Your task to perform on an android device: move a message to another label in the gmail app Image 0: 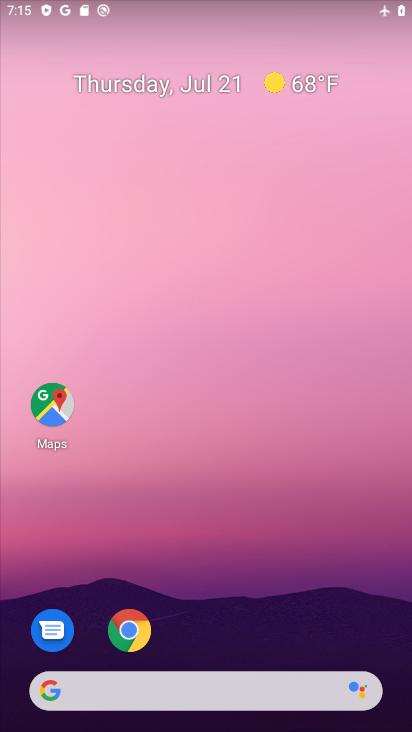
Step 0: drag from (251, 609) to (88, 37)
Your task to perform on an android device: move a message to another label in the gmail app Image 1: 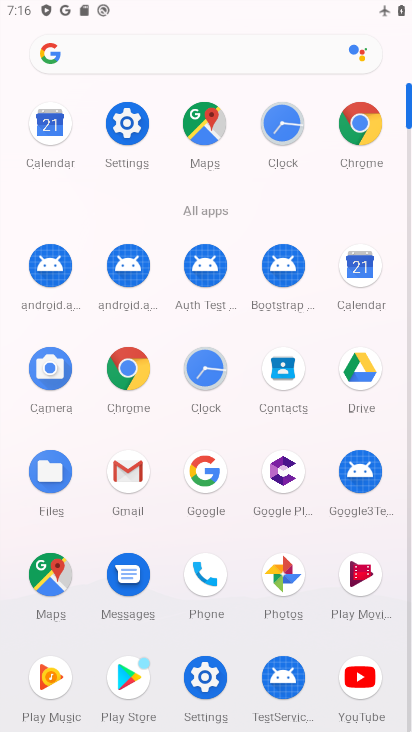
Step 1: click (115, 449)
Your task to perform on an android device: move a message to another label in the gmail app Image 2: 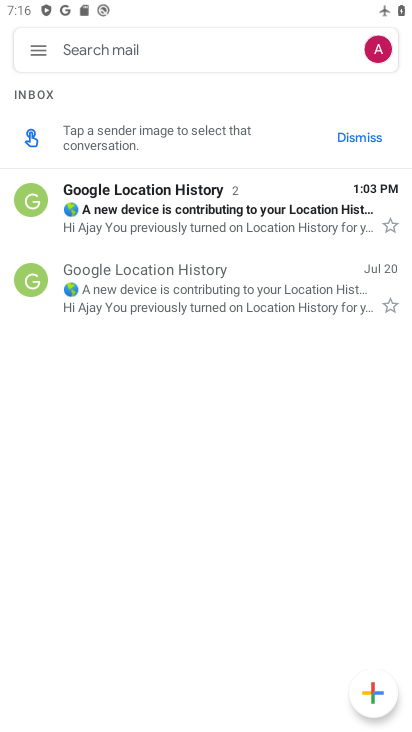
Step 2: click (171, 297)
Your task to perform on an android device: move a message to another label in the gmail app Image 3: 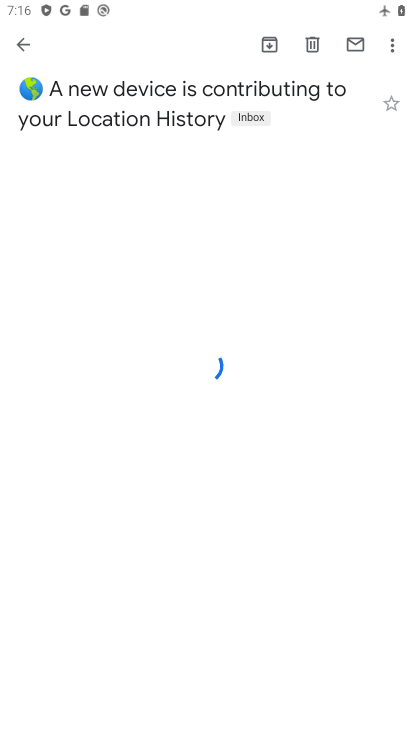
Step 3: click (386, 45)
Your task to perform on an android device: move a message to another label in the gmail app Image 4: 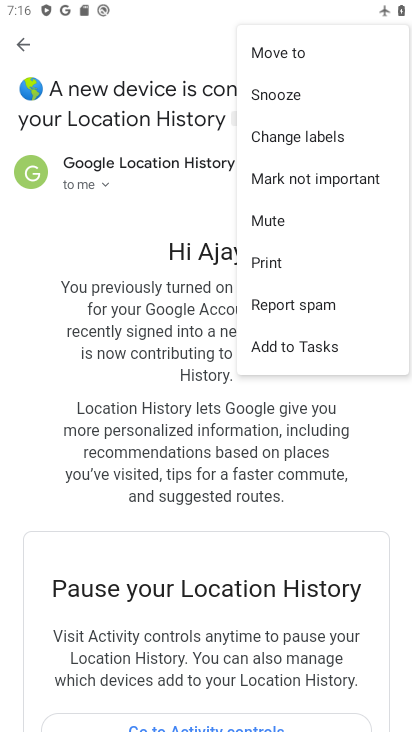
Step 4: click (311, 132)
Your task to perform on an android device: move a message to another label in the gmail app Image 5: 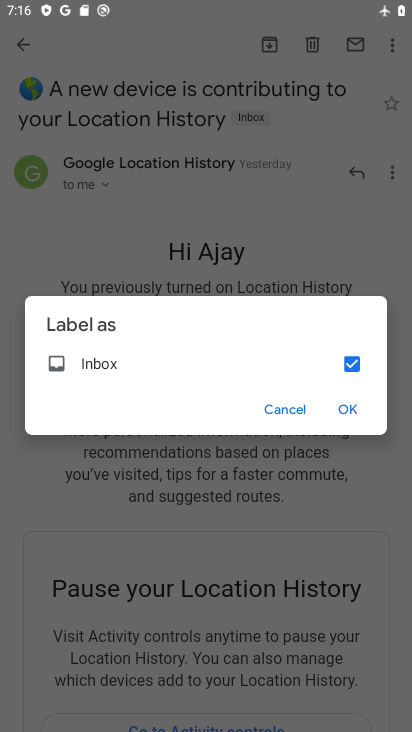
Step 5: click (358, 367)
Your task to perform on an android device: move a message to another label in the gmail app Image 6: 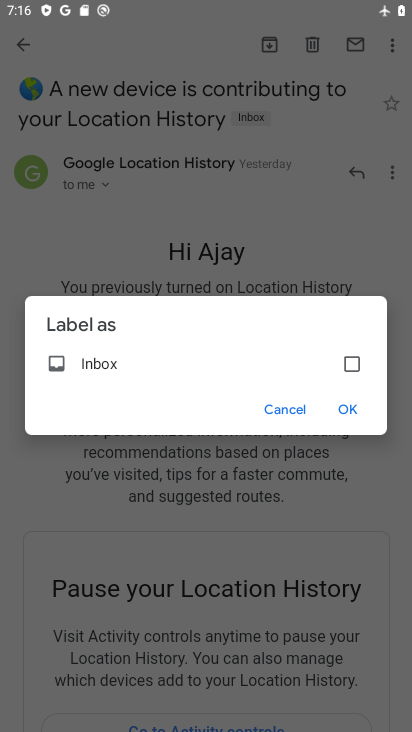
Step 6: click (356, 413)
Your task to perform on an android device: move a message to another label in the gmail app Image 7: 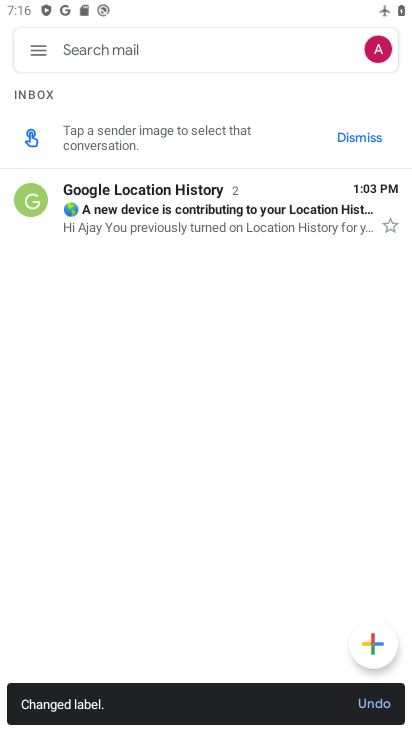
Step 7: task complete